Your task to perform on an android device: turn pop-ups on in chrome Image 0: 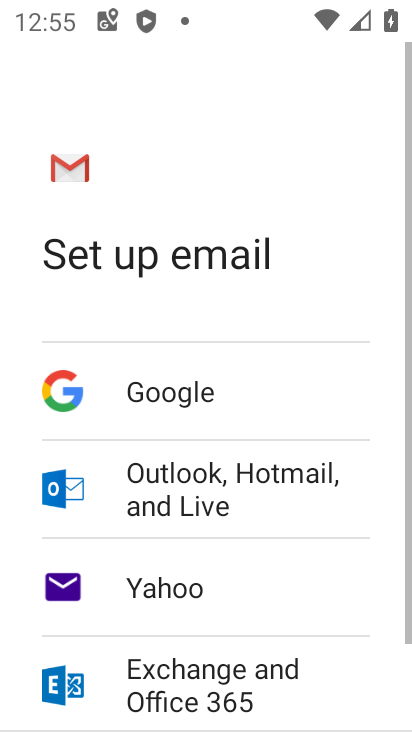
Step 0: press home button
Your task to perform on an android device: turn pop-ups on in chrome Image 1: 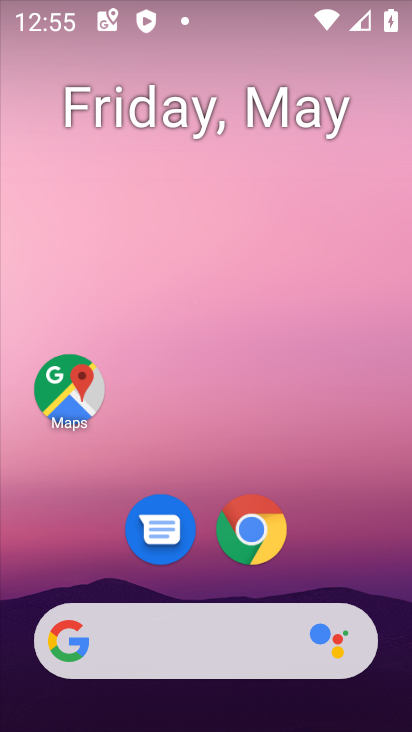
Step 1: click (261, 528)
Your task to perform on an android device: turn pop-ups on in chrome Image 2: 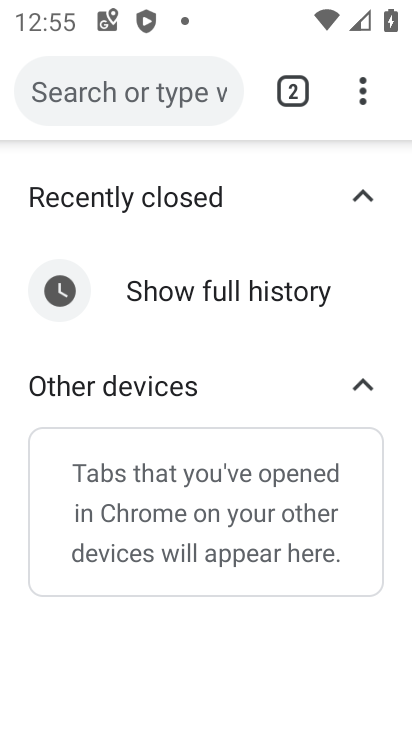
Step 2: click (365, 89)
Your task to perform on an android device: turn pop-ups on in chrome Image 3: 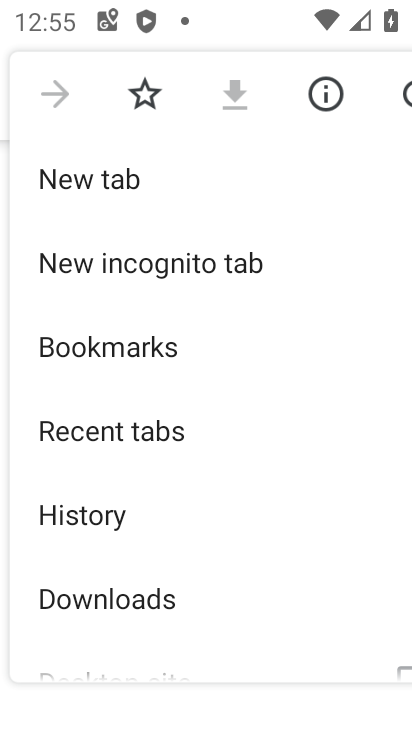
Step 3: drag from (137, 546) to (143, 344)
Your task to perform on an android device: turn pop-ups on in chrome Image 4: 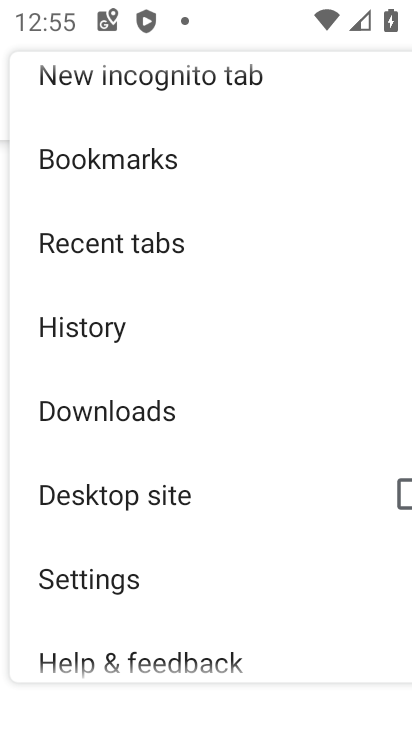
Step 4: click (161, 567)
Your task to perform on an android device: turn pop-ups on in chrome Image 5: 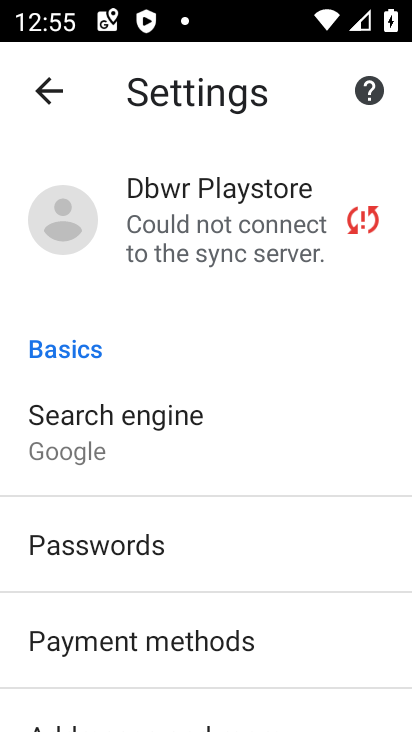
Step 5: drag from (142, 607) to (187, 403)
Your task to perform on an android device: turn pop-ups on in chrome Image 6: 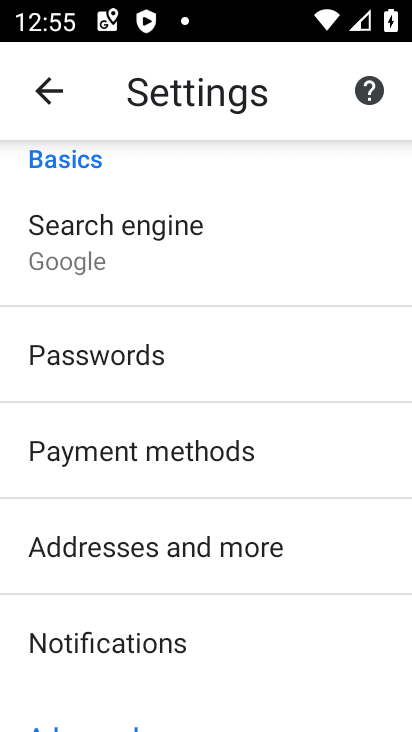
Step 6: drag from (202, 630) to (204, 404)
Your task to perform on an android device: turn pop-ups on in chrome Image 7: 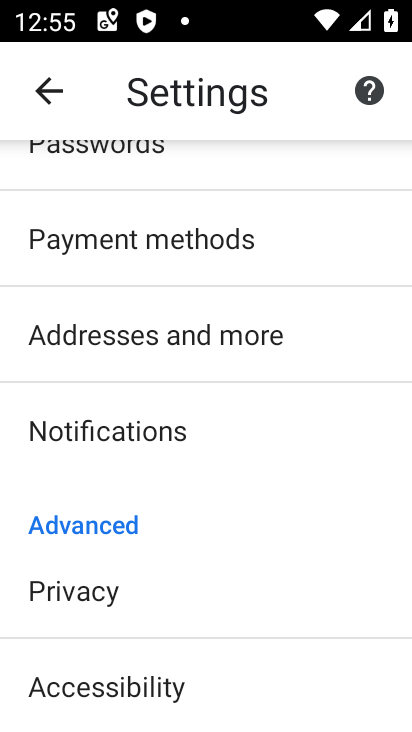
Step 7: drag from (161, 549) to (217, 322)
Your task to perform on an android device: turn pop-ups on in chrome Image 8: 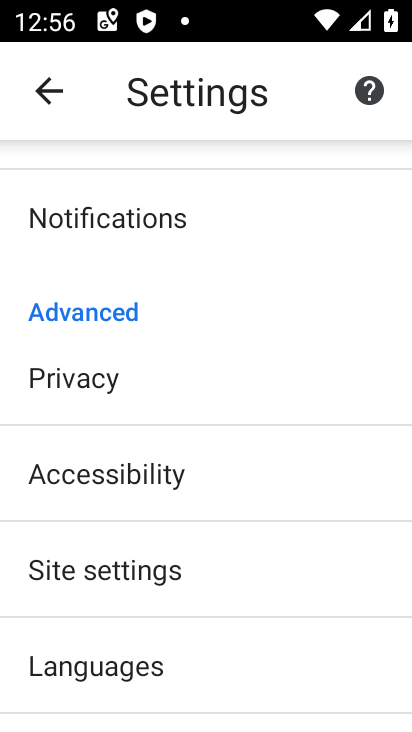
Step 8: drag from (145, 668) to (179, 393)
Your task to perform on an android device: turn pop-ups on in chrome Image 9: 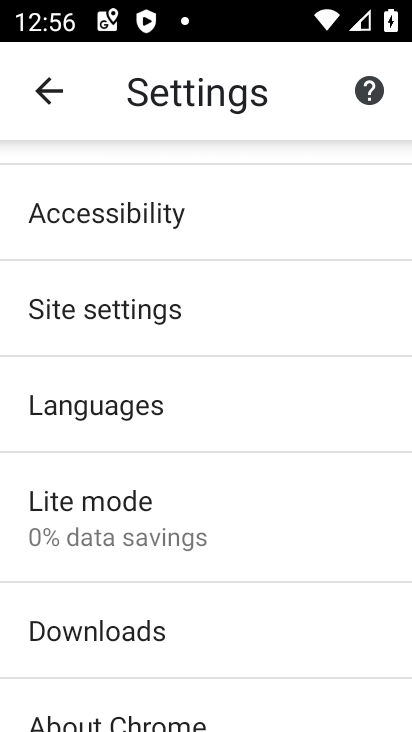
Step 9: click (238, 329)
Your task to perform on an android device: turn pop-ups on in chrome Image 10: 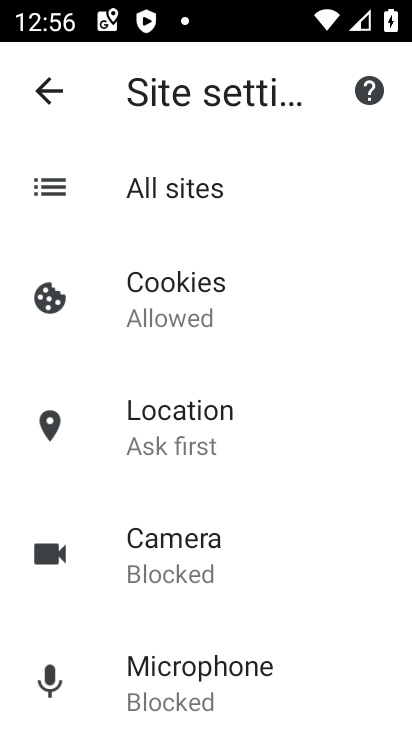
Step 10: drag from (217, 574) to (161, 173)
Your task to perform on an android device: turn pop-ups on in chrome Image 11: 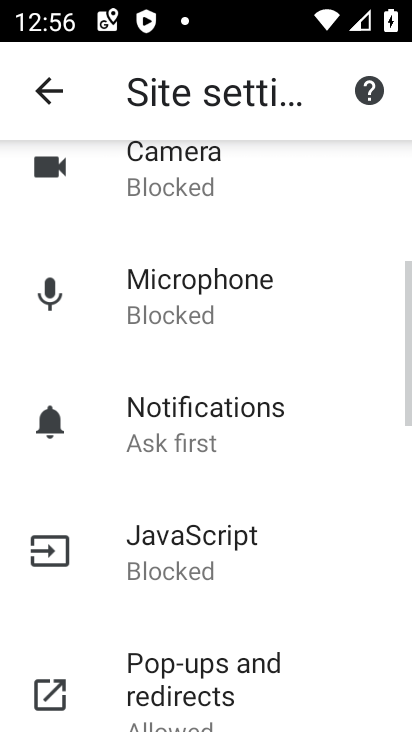
Step 11: click (224, 662)
Your task to perform on an android device: turn pop-ups on in chrome Image 12: 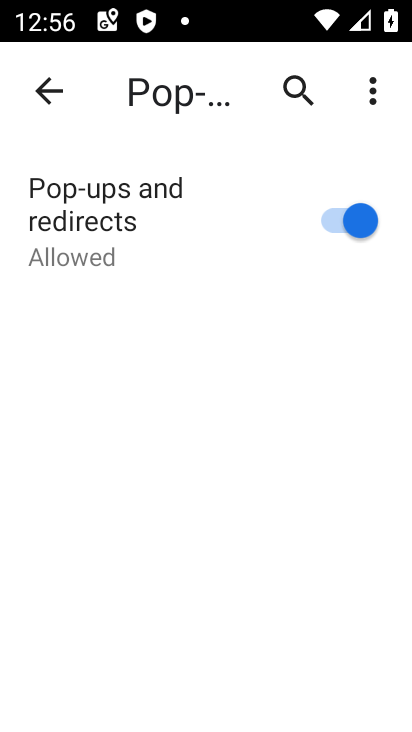
Step 12: click (341, 227)
Your task to perform on an android device: turn pop-ups on in chrome Image 13: 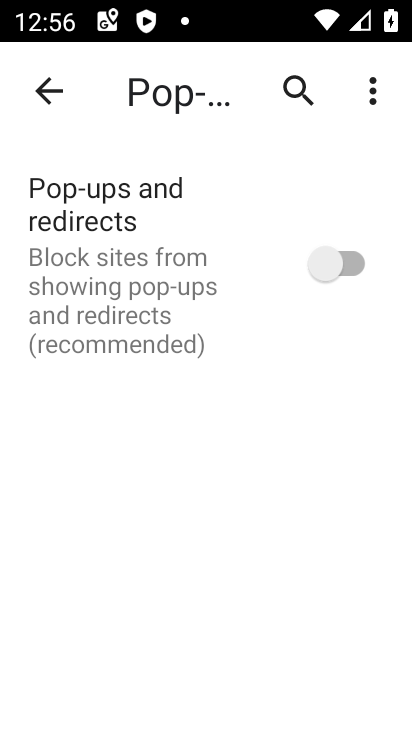
Step 13: task complete